Your task to perform on an android device: Open my contact list Image 0: 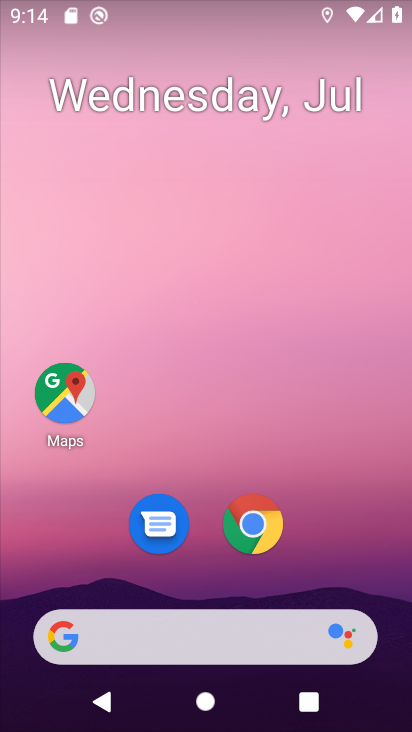
Step 0: drag from (354, 557) to (357, 80)
Your task to perform on an android device: Open my contact list Image 1: 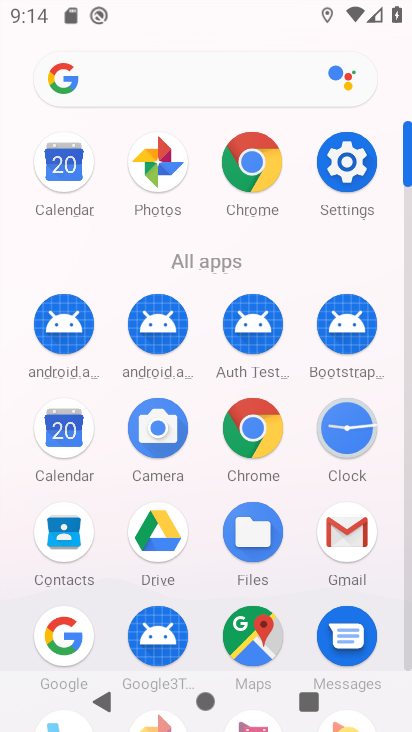
Step 1: click (63, 525)
Your task to perform on an android device: Open my contact list Image 2: 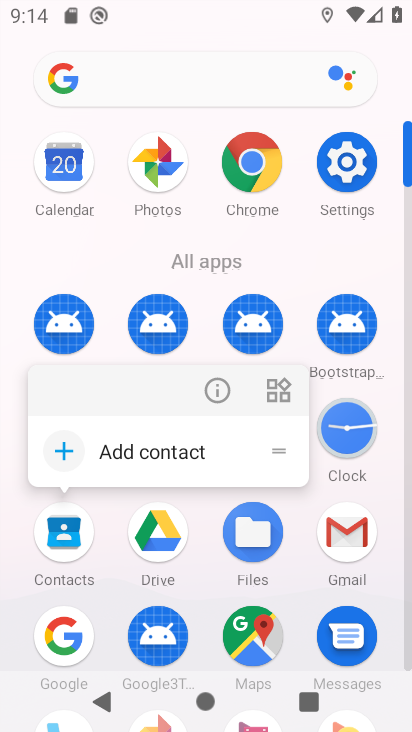
Step 2: click (61, 542)
Your task to perform on an android device: Open my contact list Image 3: 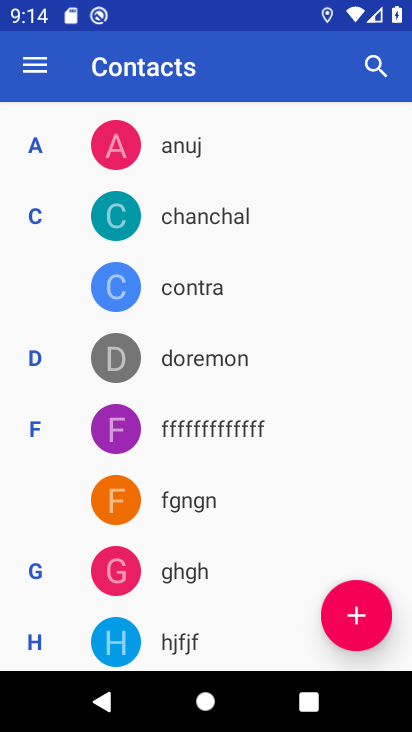
Step 3: task complete